Your task to perform on an android device: open app "Google Chat" (install if not already installed) Image 0: 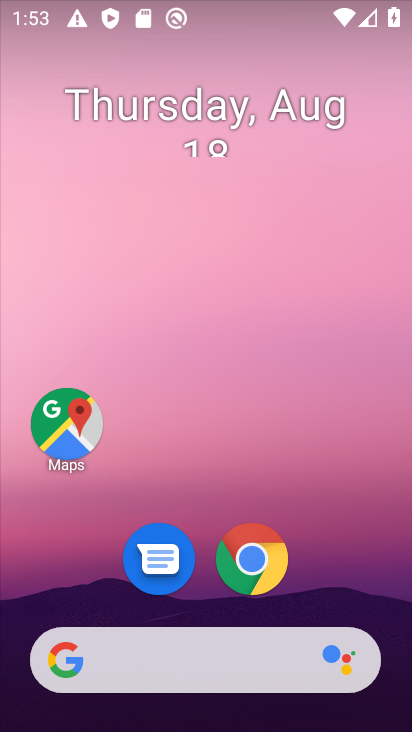
Step 0: drag from (183, 454) to (197, 46)
Your task to perform on an android device: open app "Google Chat" (install if not already installed) Image 1: 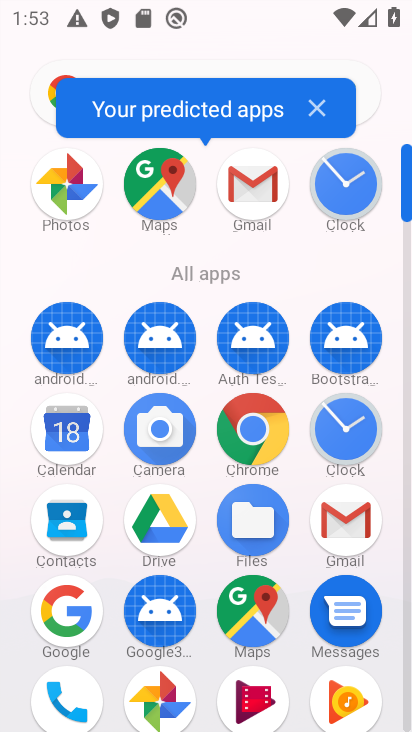
Step 1: drag from (262, 596) to (278, 114)
Your task to perform on an android device: open app "Google Chat" (install if not already installed) Image 2: 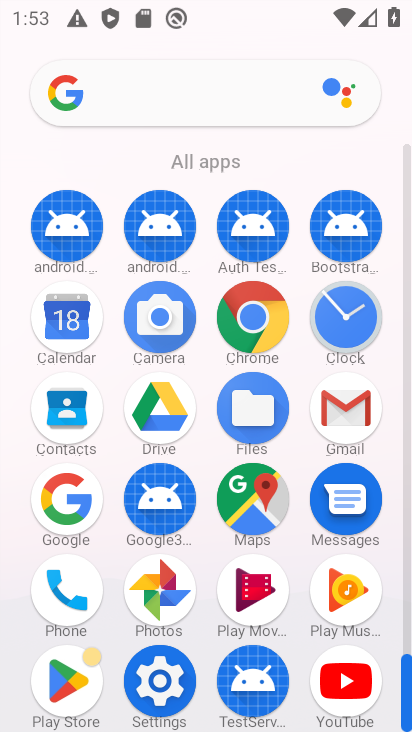
Step 2: click (57, 688)
Your task to perform on an android device: open app "Google Chat" (install if not already installed) Image 3: 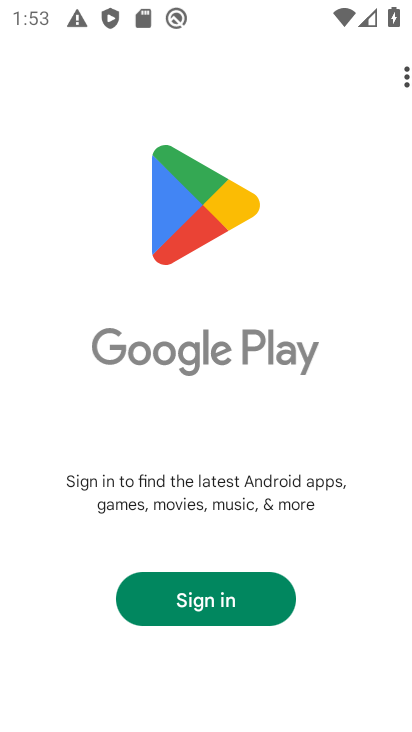
Step 3: click (194, 605)
Your task to perform on an android device: open app "Google Chat" (install if not already installed) Image 4: 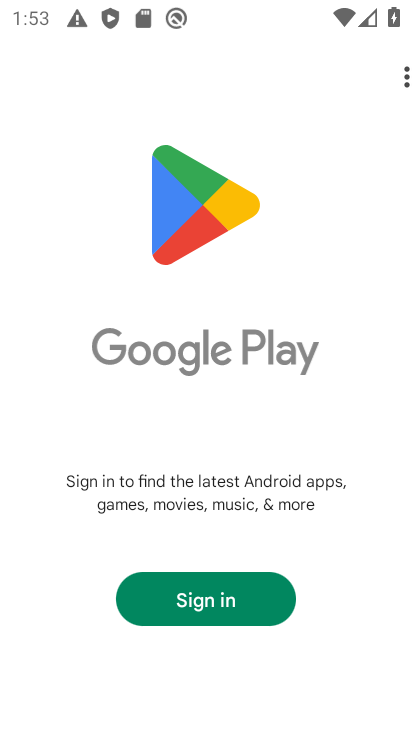
Step 4: task complete